Your task to perform on an android device: Open Google Maps Image 0: 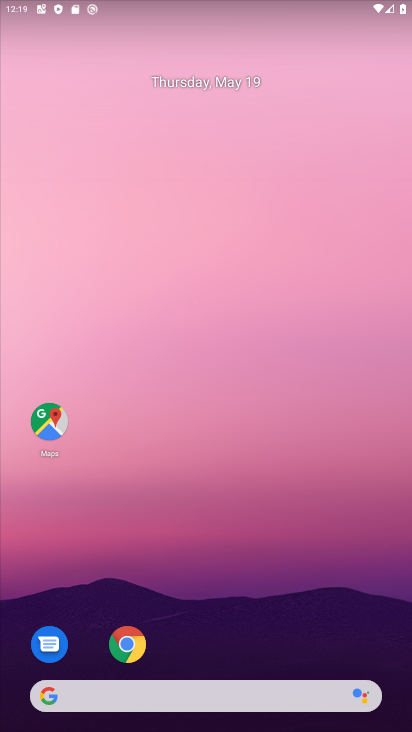
Step 0: drag from (257, 610) to (279, 258)
Your task to perform on an android device: Open Google Maps Image 1: 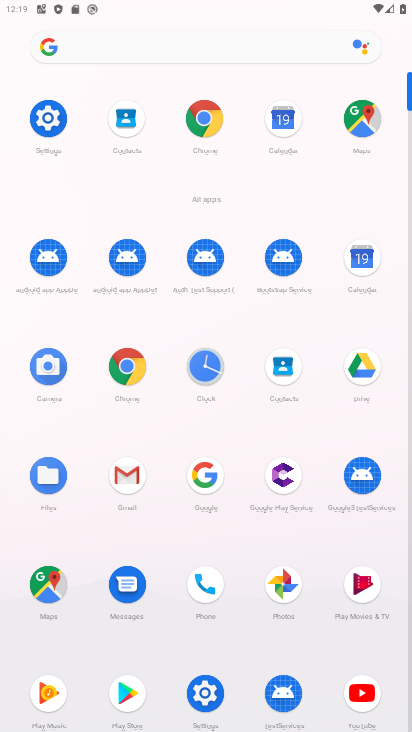
Step 1: click (55, 581)
Your task to perform on an android device: Open Google Maps Image 2: 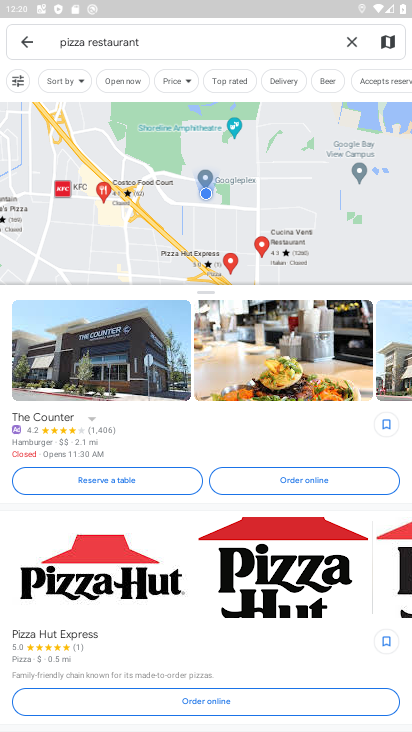
Step 2: task complete